Your task to perform on an android device: Check the news Image 0: 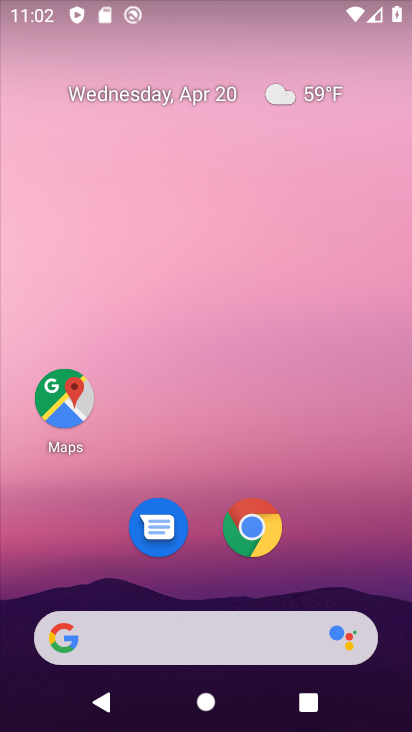
Step 0: drag from (366, 559) to (376, 224)
Your task to perform on an android device: Check the news Image 1: 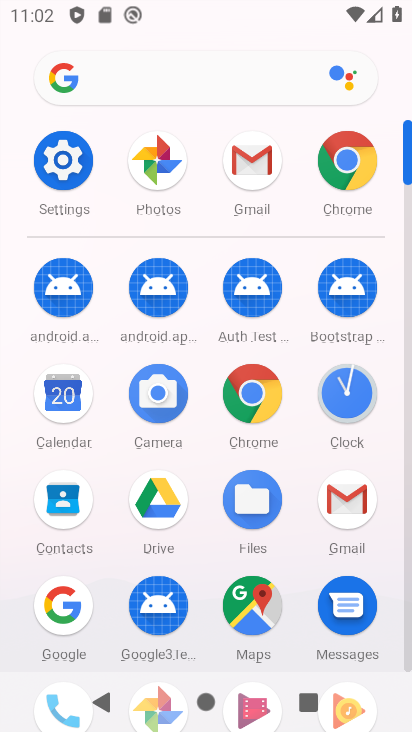
Step 1: click (252, 392)
Your task to perform on an android device: Check the news Image 2: 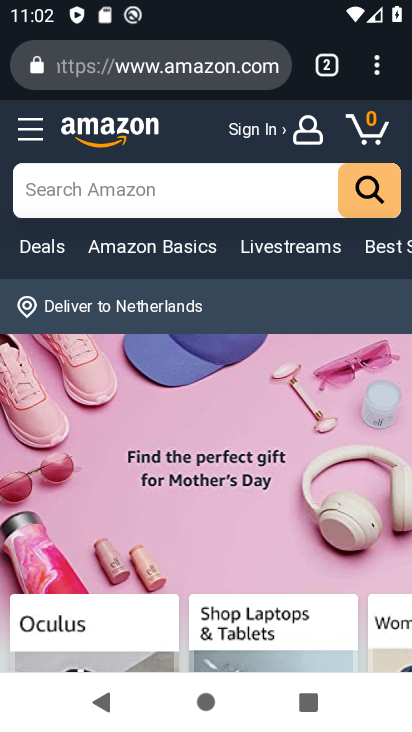
Step 2: click (122, 66)
Your task to perform on an android device: Check the news Image 3: 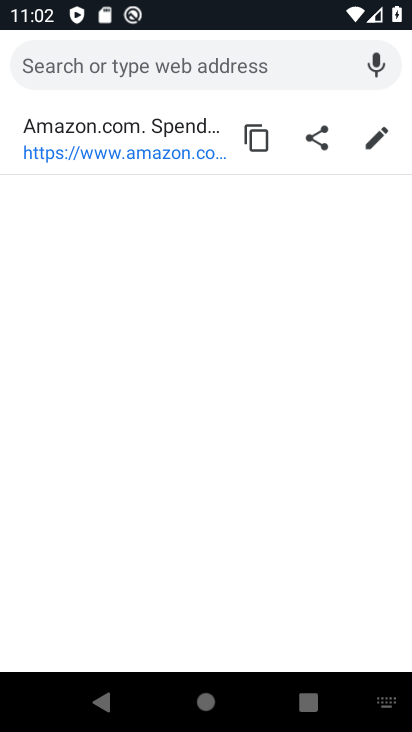
Step 3: type "news"
Your task to perform on an android device: Check the news Image 4: 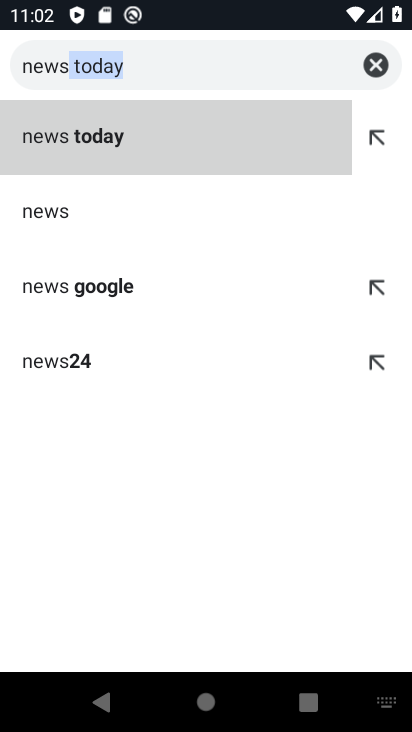
Step 4: click (83, 200)
Your task to perform on an android device: Check the news Image 5: 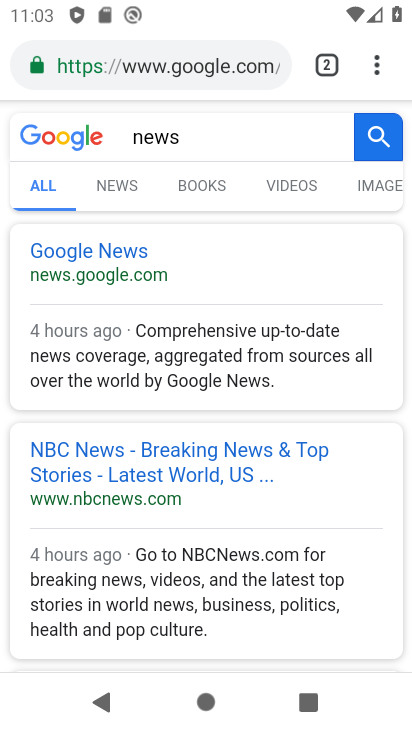
Step 5: click (74, 254)
Your task to perform on an android device: Check the news Image 6: 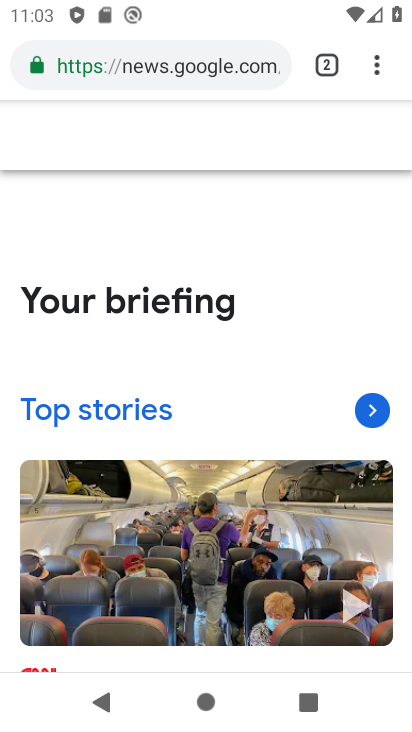
Step 6: task complete